Your task to perform on an android device: Open the calendar app, open the side menu, and click the "Day" option Image 0: 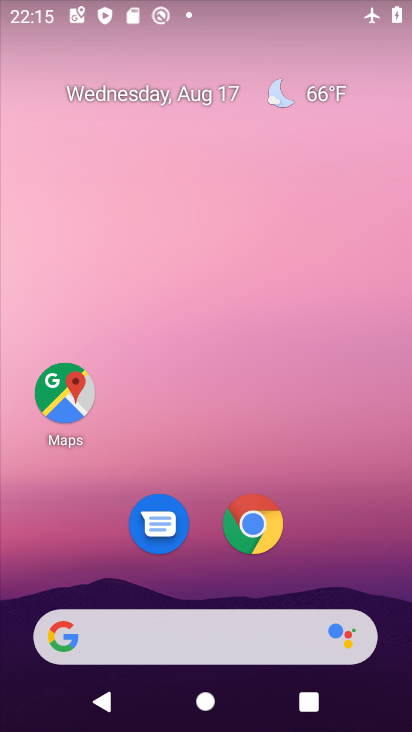
Step 0: drag from (332, 551) to (403, 0)
Your task to perform on an android device: Open the calendar app, open the side menu, and click the "Day" option Image 1: 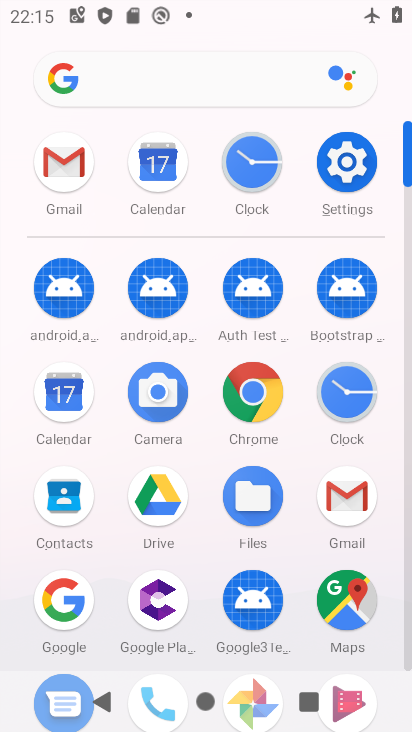
Step 1: click (168, 171)
Your task to perform on an android device: Open the calendar app, open the side menu, and click the "Day" option Image 2: 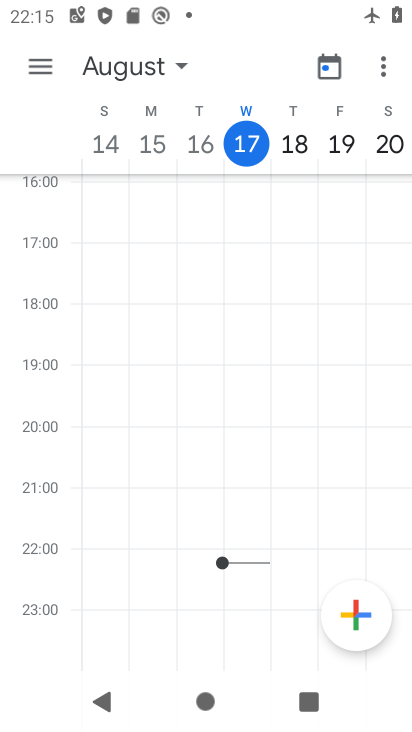
Step 2: click (42, 61)
Your task to perform on an android device: Open the calendar app, open the side menu, and click the "Day" option Image 3: 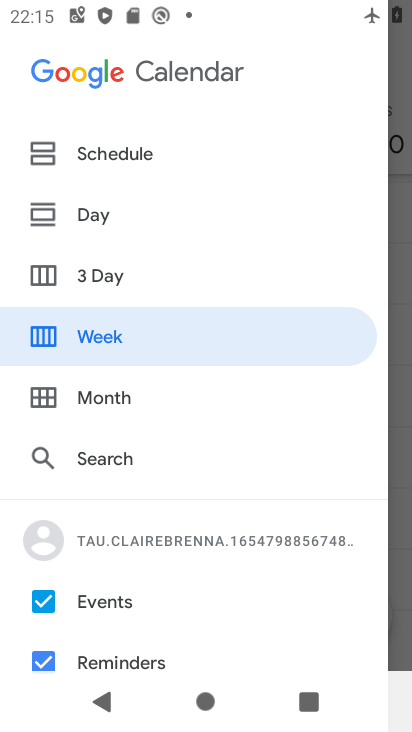
Step 3: click (42, 205)
Your task to perform on an android device: Open the calendar app, open the side menu, and click the "Day" option Image 4: 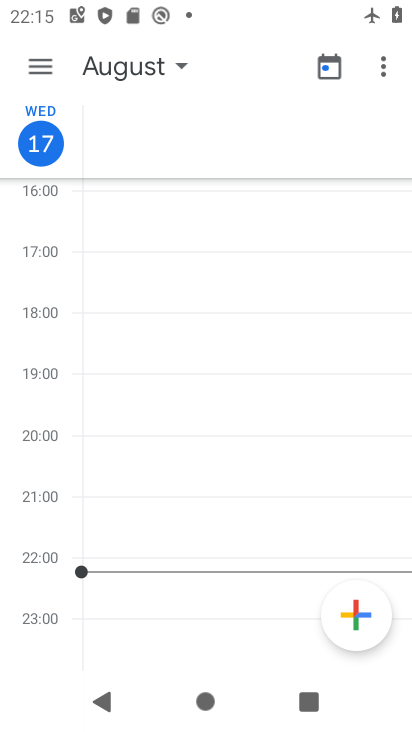
Step 4: task complete